Your task to perform on an android device: refresh tabs in the chrome app Image 0: 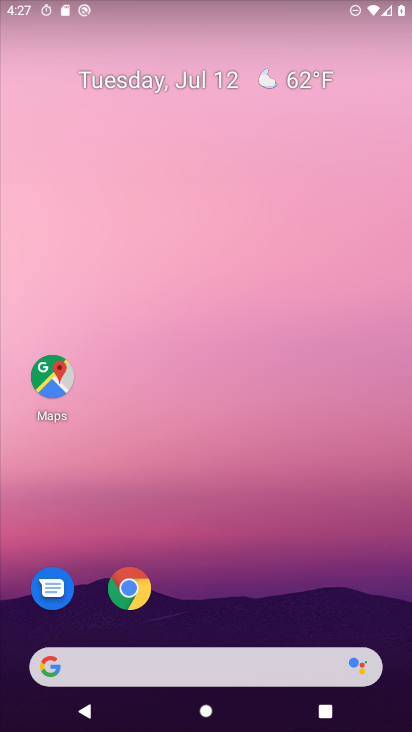
Step 0: click (331, 140)
Your task to perform on an android device: refresh tabs in the chrome app Image 1: 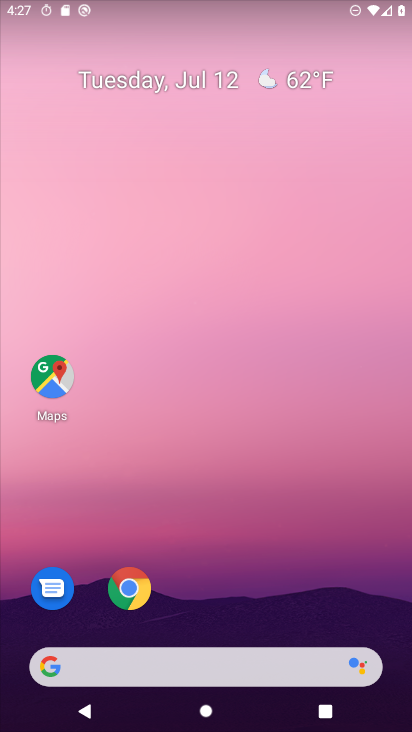
Step 1: click (136, 599)
Your task to perform on an android device: refresh tabs in the chrome app Image 2: 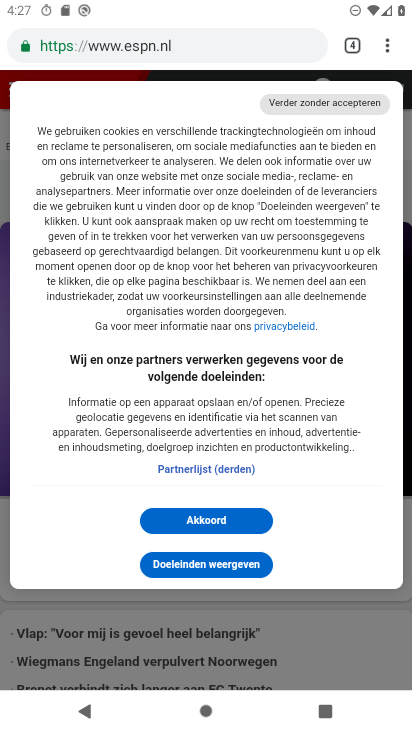
Step 2: click (136, 599)
Your task to perform on an android device: refresh tabs in the chrome app Image 3: 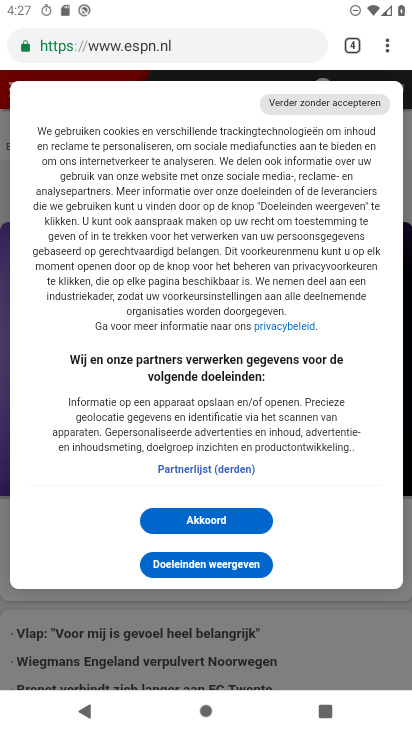
Step 3: click (392, 43)
Your task to perform on an android device: refresh tabs in the chrome app Image 4: 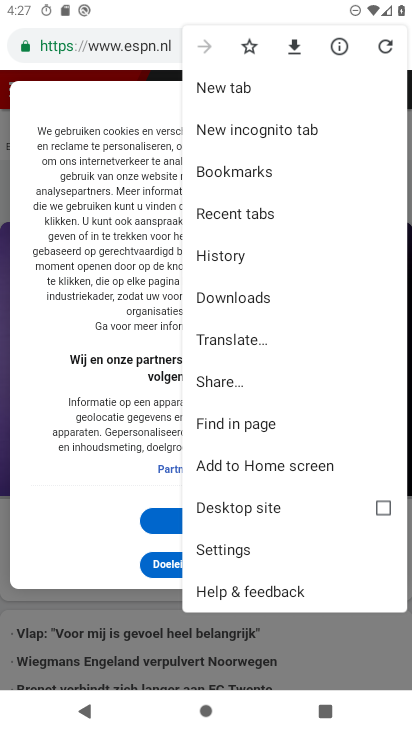
Step 4: click (253, 212)
Your task to perform on an android device: refresh tabs in the chrome app Image 5: 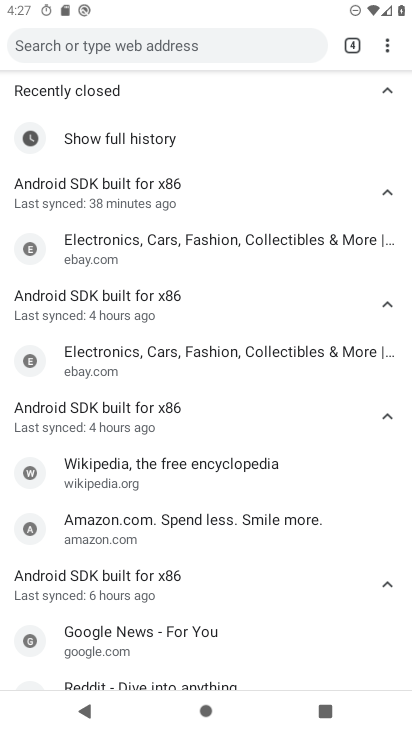
Step 5: task complete